Your task to perform on an android device: toggle location history Image 0: 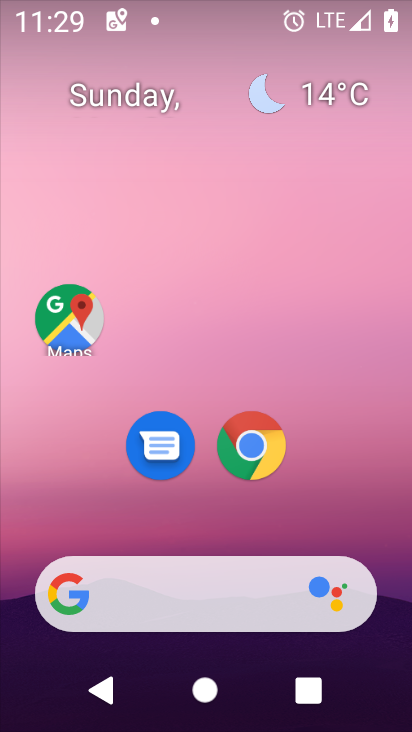
Step 0: drag from (196, 520) to (284, 11)
Your task to perform on an android device: toggle location history Image 1: 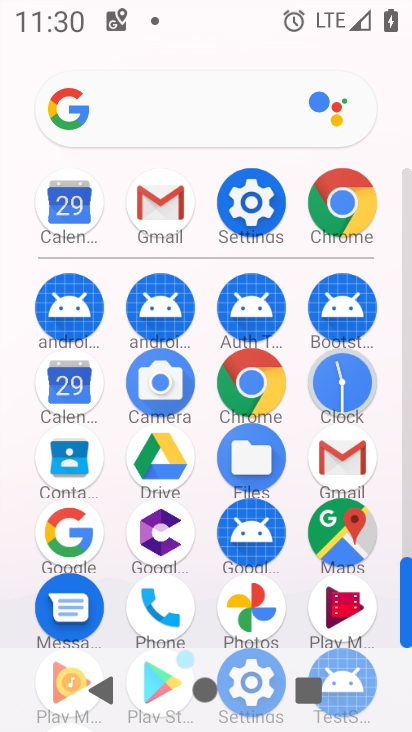
Step 1: click (255, 203)
Your task to perform on an android device: toggle location history Image 2: 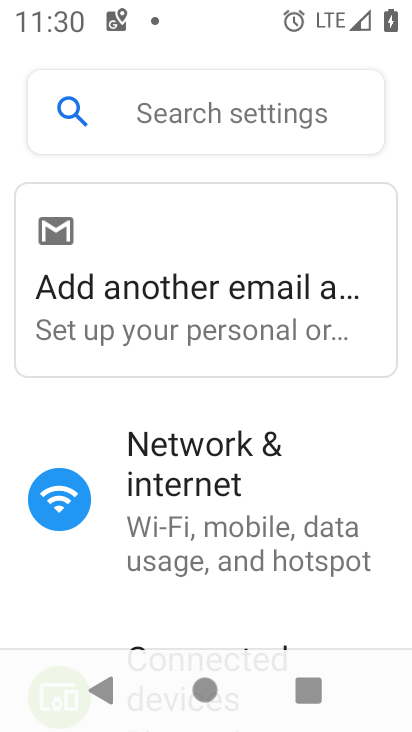
Step 2: drag from (202, 433) to (257, 118)
Your task to perform on an android device: toggle location history Image 3: 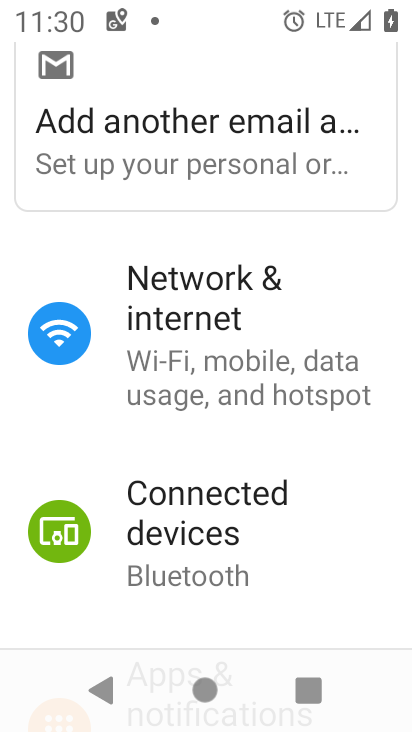
Step 3: drag from (258, 563) to (290, 217)
Your task to perform on an android device: toggle location history Image 4: 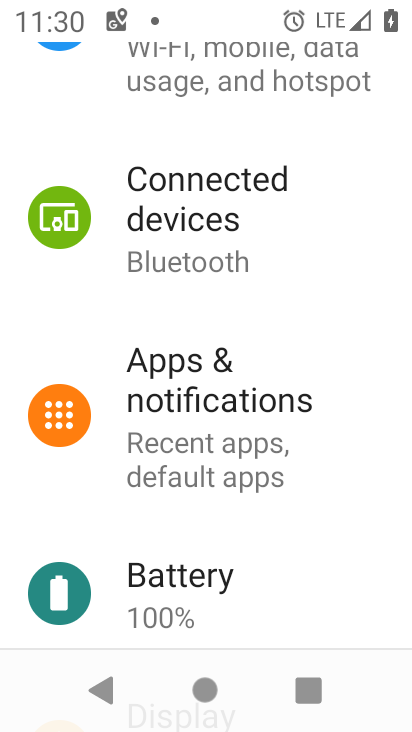
Step 4: drag from (227, 368) to (186, 22)
Your task to perform on an android device: toggle location history Image 5: 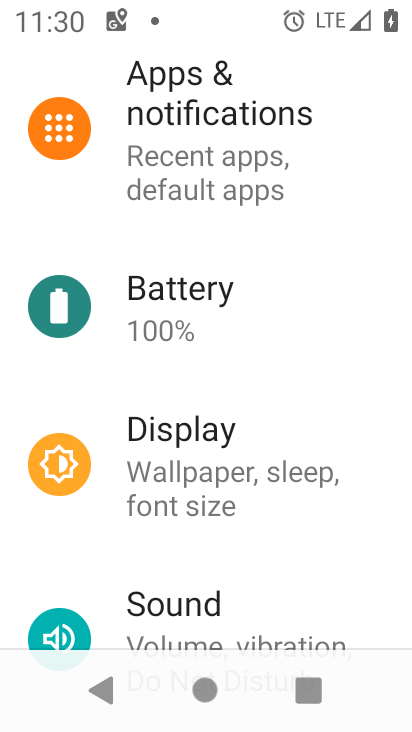
Step 5: drag from (229, 394) to (325, 11)
Your task to perform on an android device: toggle location history Image 6: 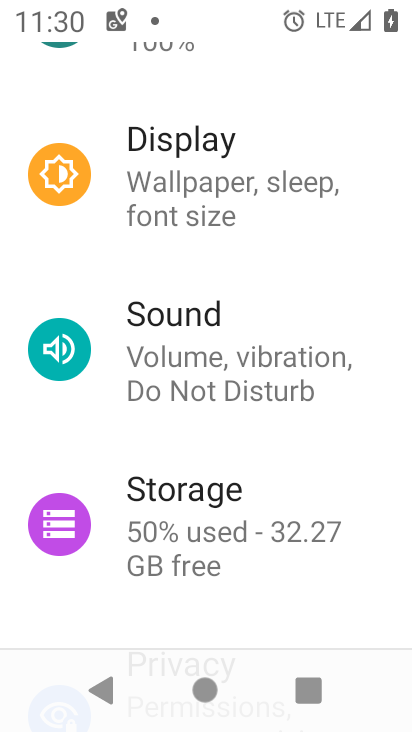
Step 6: drag from (275, 408) to (358, 1)
Your task to perform on an android device: toggle location history Image 7: 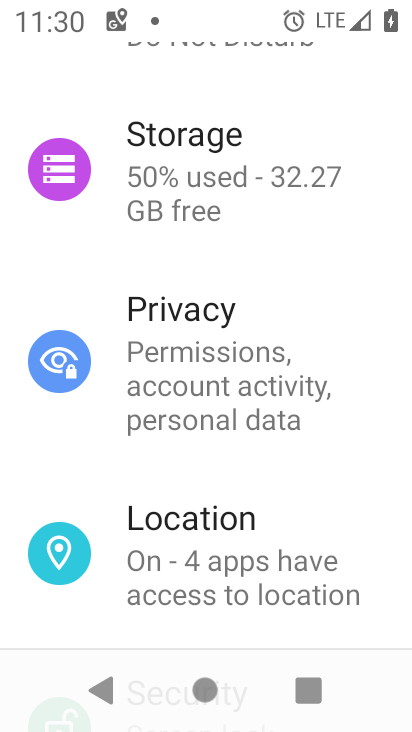
Step 7: drag from (215, 551) to (250, 218)
Your task to perform on an android device: toggle location history Image 8: 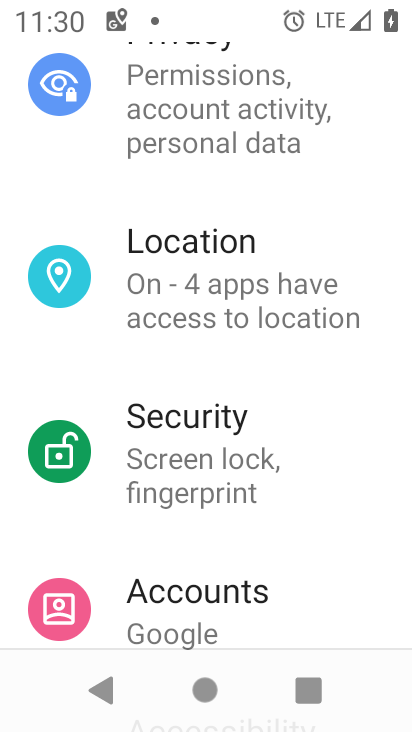
Step 8: click (206, 289)
Your task to perform on an android device: toggle location history Image 9: 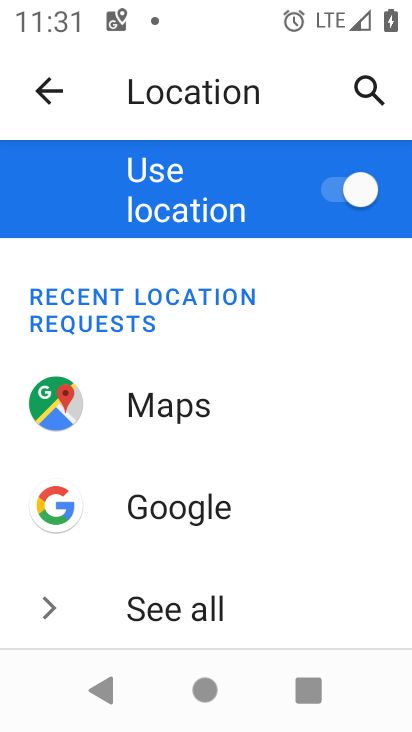
Step 9: drag from (193, 562) to (270, 212)
Your task to perform on an android device: toggle location history Image 10: 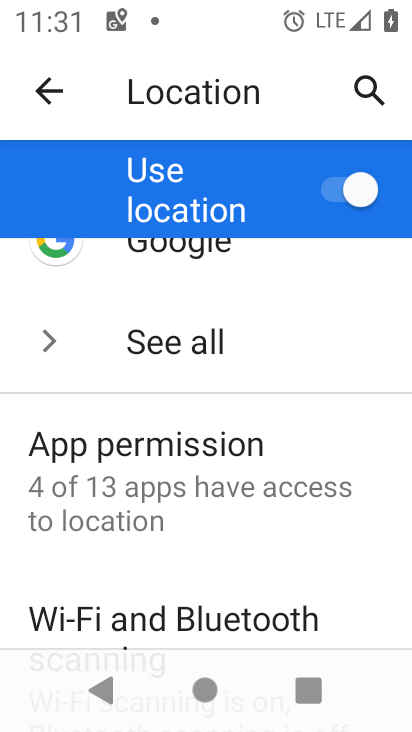
Step 10: drag from (188, 478) to (302, 276)
Your task to perform on an android device: toggle location history Image 11: 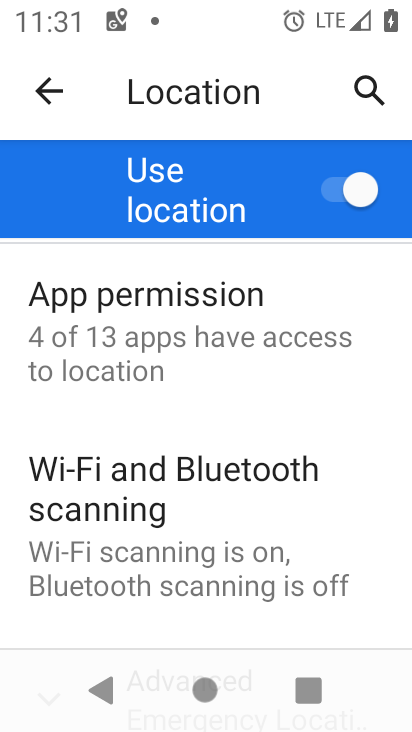
Step 11: drag from (248, 516) to (130, 8)
Your task to perform on an android device: toggle location history Image 12: 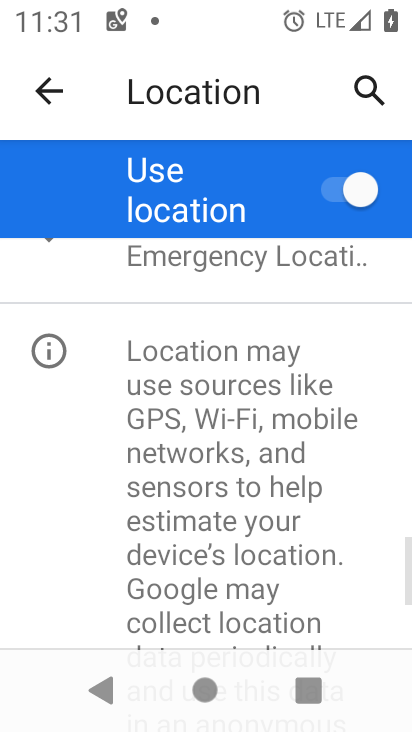
Step 12: drag from (196, 509) to (233, 209)
Your task to perform on an android device: toggle location history Image 13: 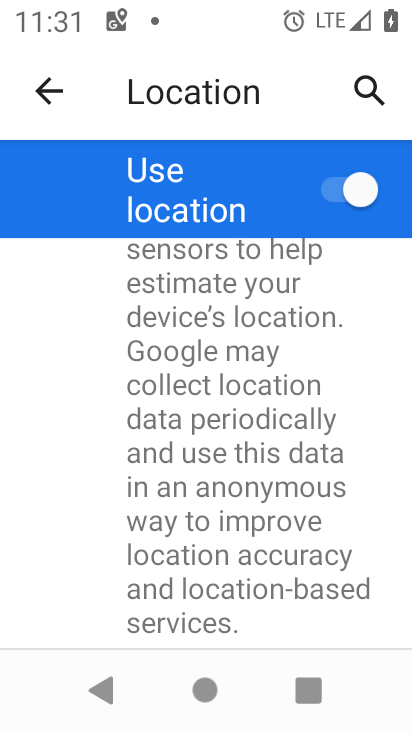
Step 13: drag from (177, 406) to (223, 730)
Your task to perform on an android device: toggle location history Image 14: 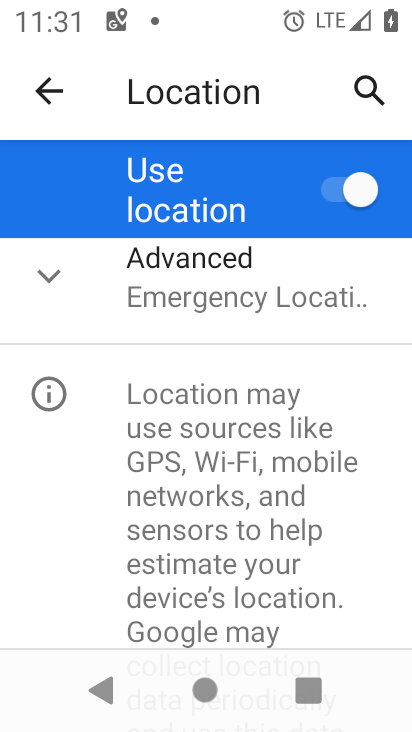
Step 14: click (91, 286)
Your task to perform on an android device: toggle location history Image 15: 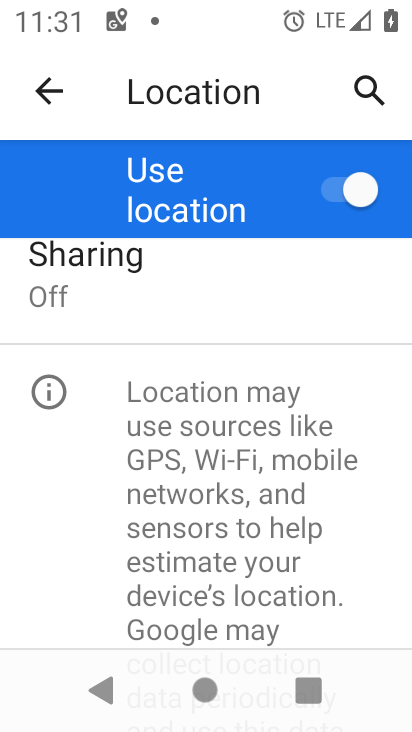
Step 15: drag from (227, 361) to (262, 719)
Your task to perform on an android device: toggle location history Image 16: 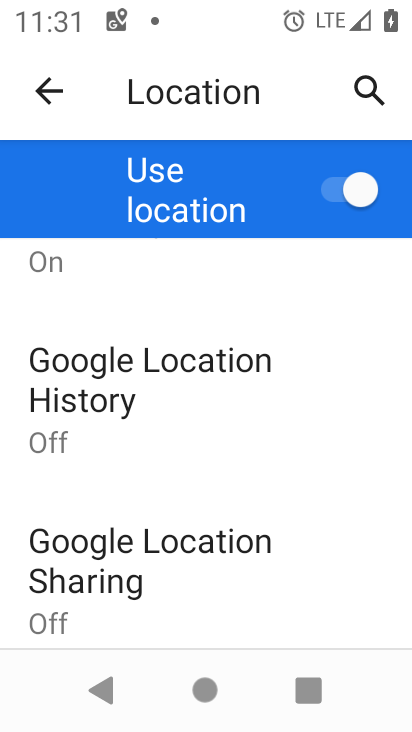
Step 16: click (168, 379)
Your task to perform on an android device: toggle location history Image 17: 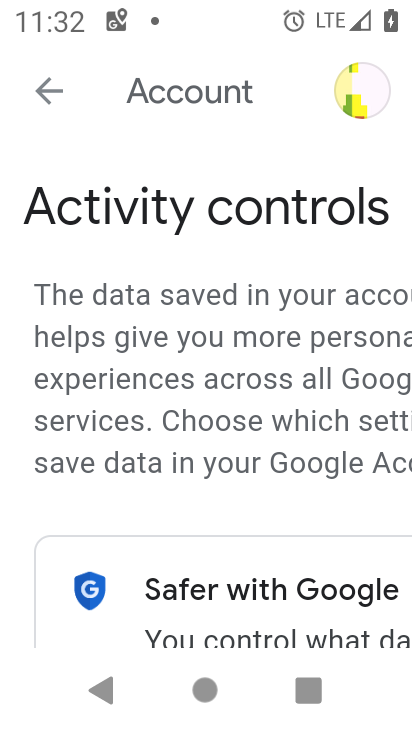
Step 17: drag from (257, 609) to (327, 219)
Your task to perform on an android device: toggle location history Image 18: 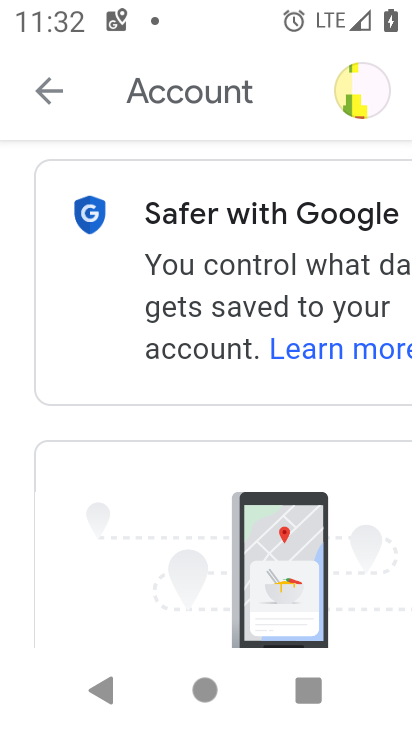
Step 18: drag from (297, 606) to (276, 164)
Your task to perform on an android device: toggle location history Image 19: 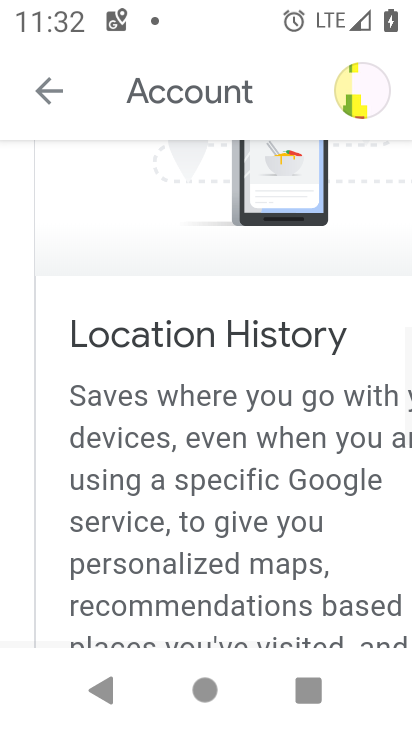
Step 19: drag from (290, 551) to (245, 58)
Your task to perform on an android device: toggle location history Image 20: 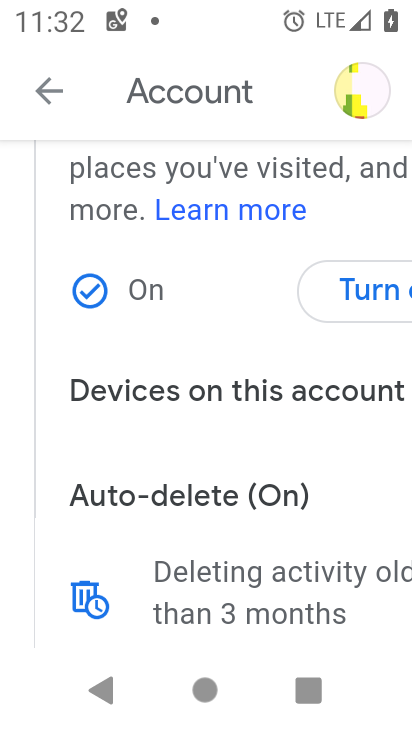
Step 20: drag from (351, 521) to (248, 108)
Your task to perform on an android device: toggle location history Image 21: 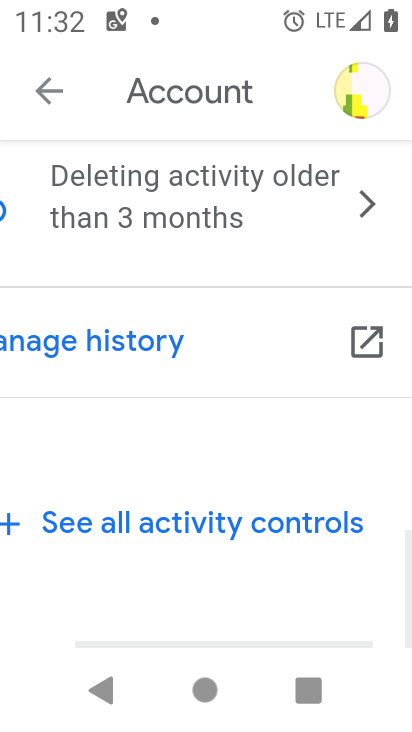
Step 21: drag from (252, 333) to (284, 723)
Your task to perform on an android device: toggle location history Image 22: 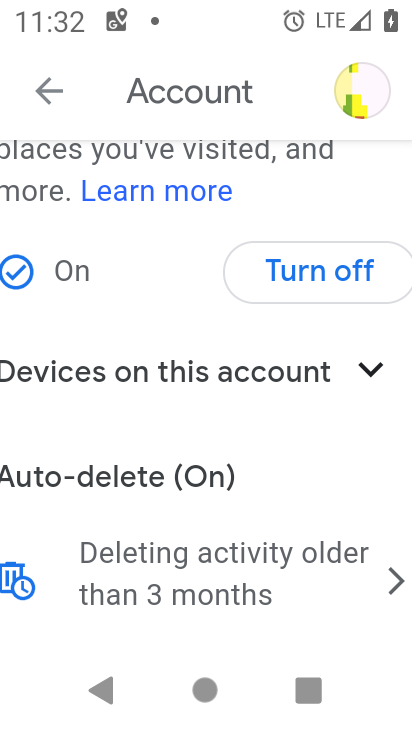
Step 22: click (314, 285)
Your task to perform on an android device: toggle location history Image 23: 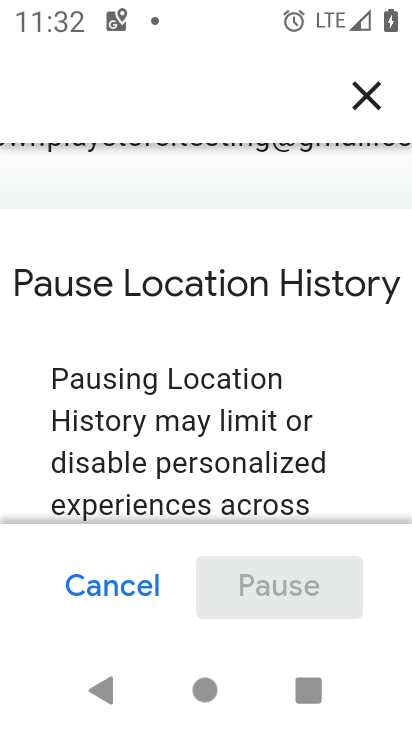
Step 23: drag from (254, 313) to (287, 76)
Your task to perform on an android device: toggle location history Image 24: 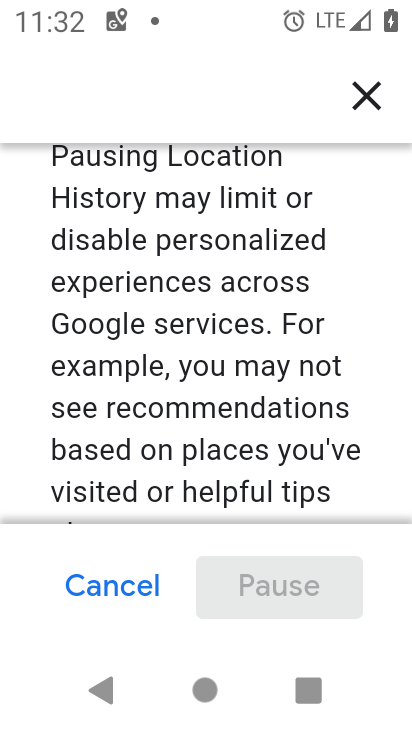
Step 24: drag from (233, 467) to (319, 107)
Your task to perform on an android device: toggle location history Image 25: 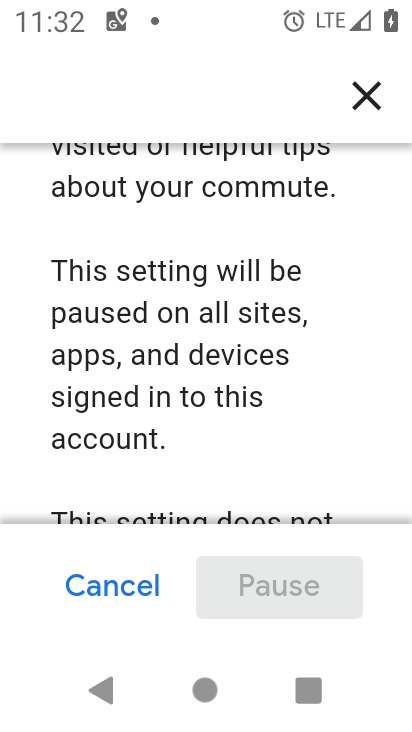
Step 25: drag from (224, 419) to (224, 1)
Your task to perform on an android device: toggle location history Image 26: 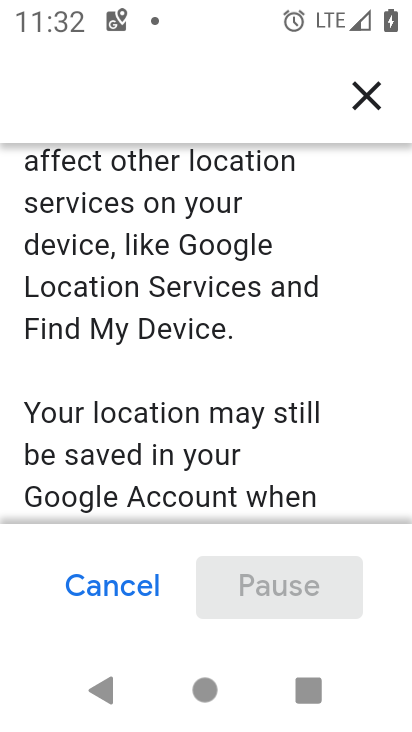
Step 26: drag from (213, 410) to (367, 1)
Your task to perform on an android device: toggle location history Image 27: 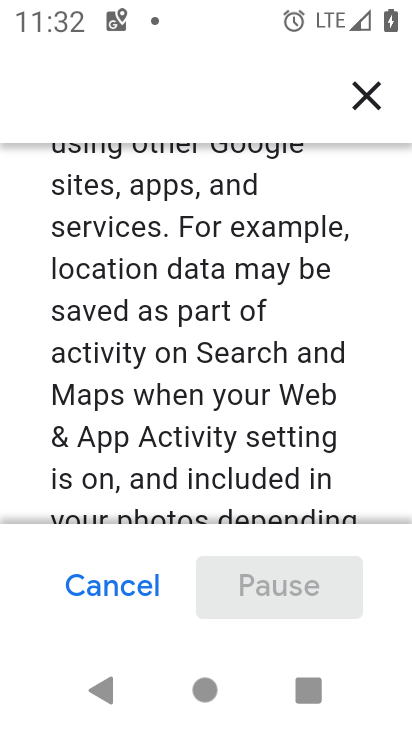
Step 27: drag from (178, 494) to (301, 20)
Your task to perform on an android device: toggle location history Image 28: 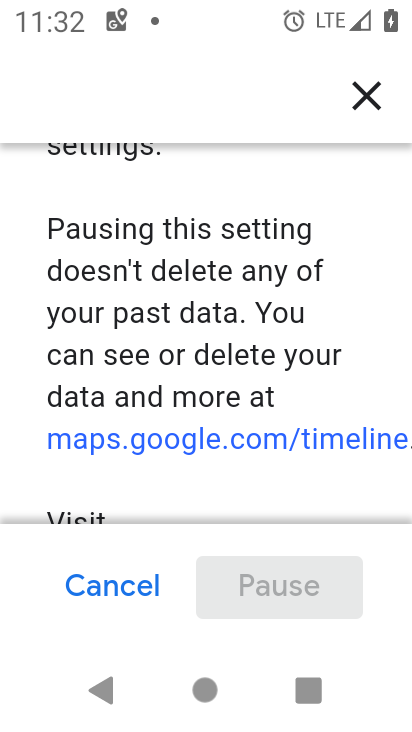
Step 28: drag from (264, 214) to (301, 11)
Your task to perform on an android device: toggle location history Image 29: 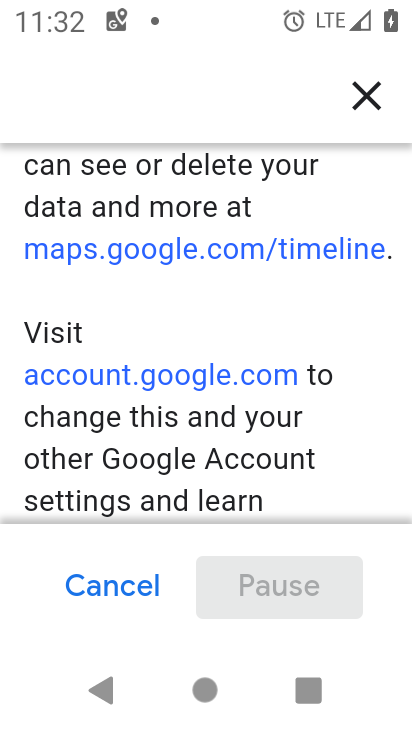
Step 29: drag from (280, 470) to (406, 270)
Your task to perform on an android device: toggle location history Image 30: 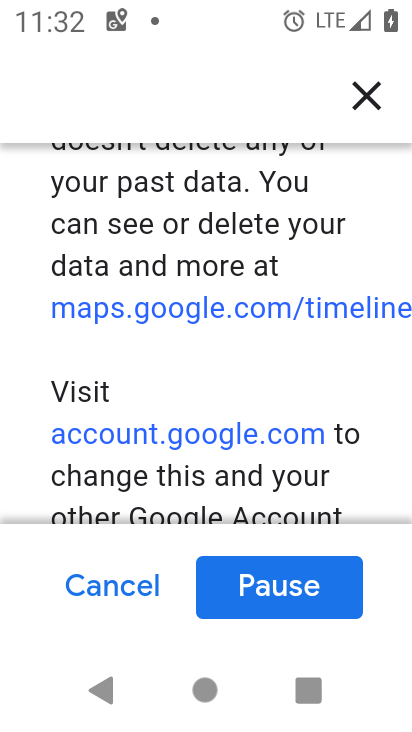
Step 30: click (269, 605)
Your task to perform on an android device: toggle location history Image 31: 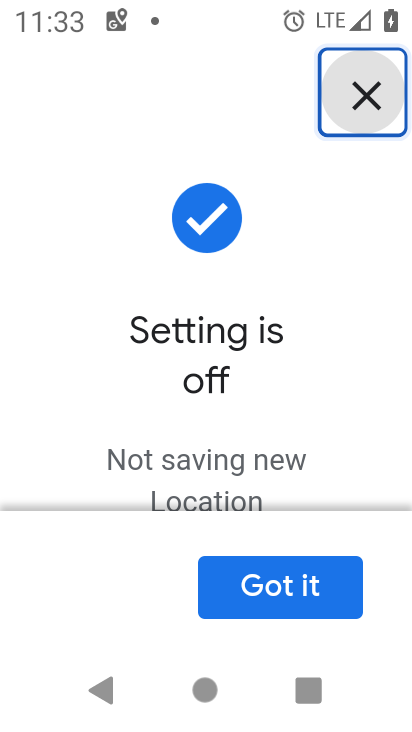
Step 31: click (297, 617)
Your task to perform on an android device: toggle location history Image 32: 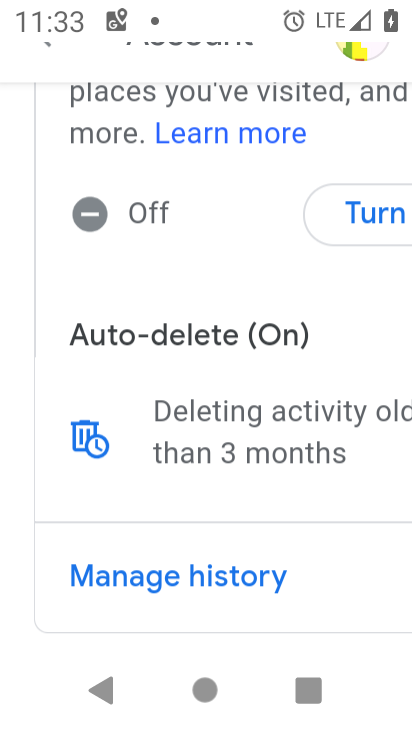
Step 32: task complete